Your task to perform on an android device: Go to Google Image 0: 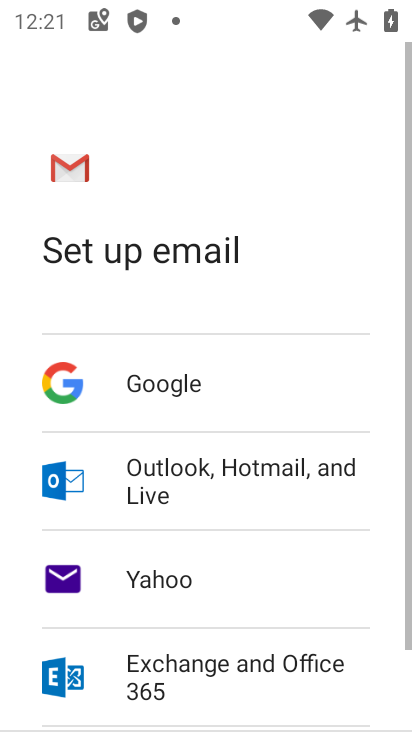
Step 0: press home button
Your task to perform on an android device: Go to Google Image 1: 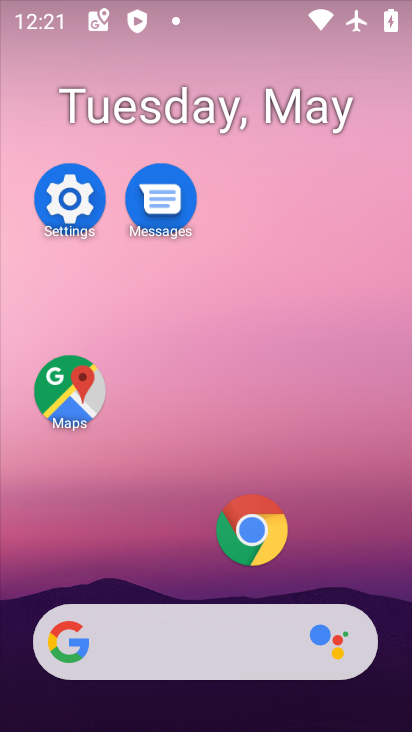
Step 1: drag from (178, 572) to (261, 143)
Your task to perform on an android device: Go to Google Image 2: 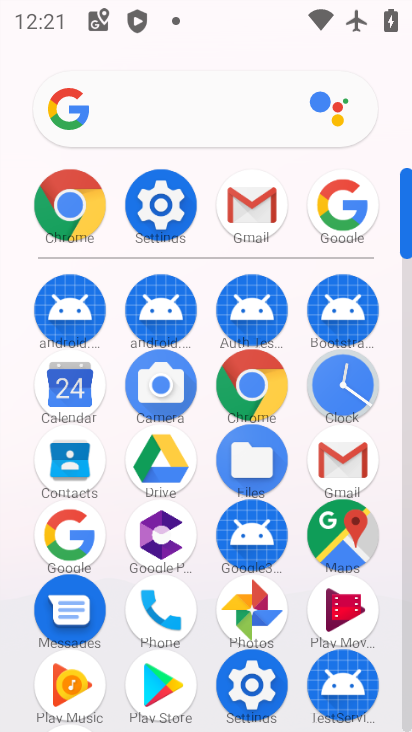
Step 2: click (68, 538)
Your task to perform on an android device: Go to Google Image 3: 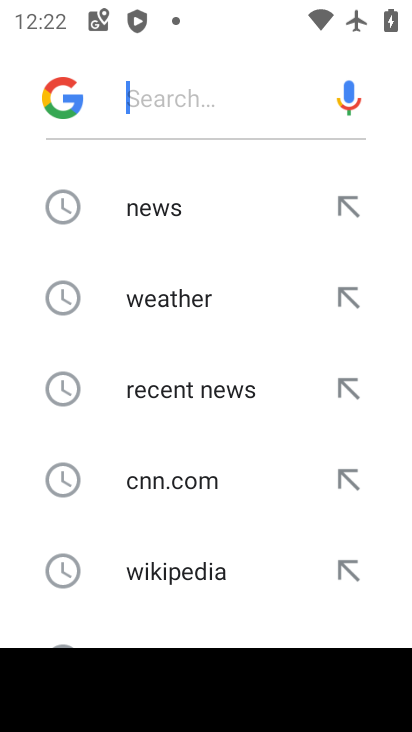
Step 3: task complete